Your task to perform on an android device: Go to Amazon Image 0: 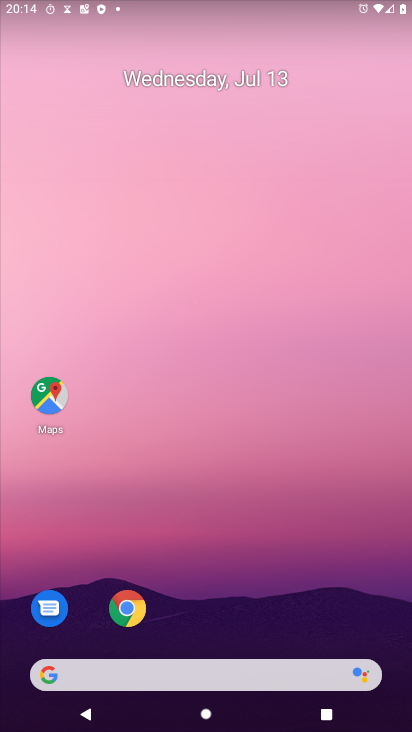
Step 0: drag from (197, 648) to (177, 78)
Your task to perform on an android device: Go to Amazon Image 1: 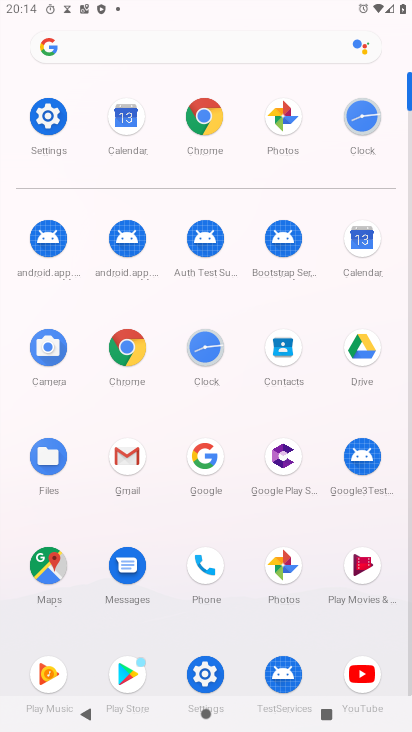
Step 1: click (133, 354)
Your task to perform on an android device: Go to Amazon Image 2: 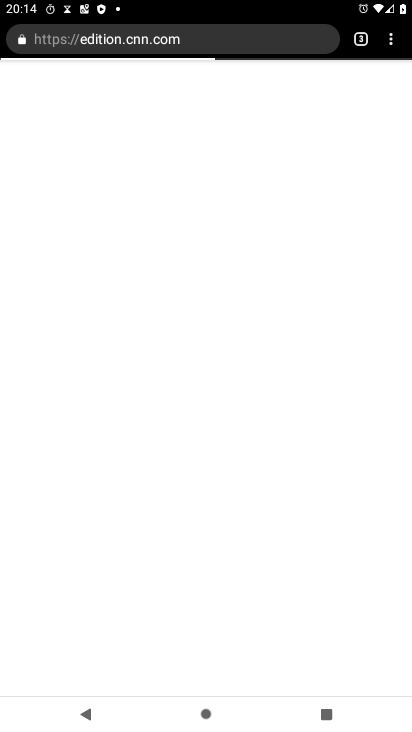
Step 2: click (352, 37)
Your task to perform on an android device: Go to Amazon Image 3: 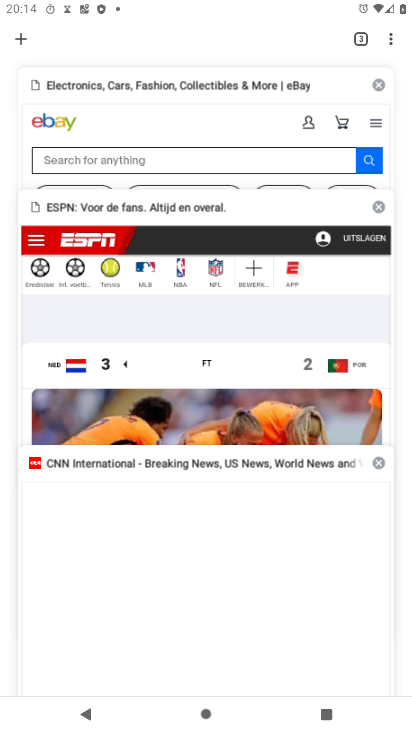
Step 3: click (18, 37)
Your task to perform on an android device: Go to Amazon Image 4: 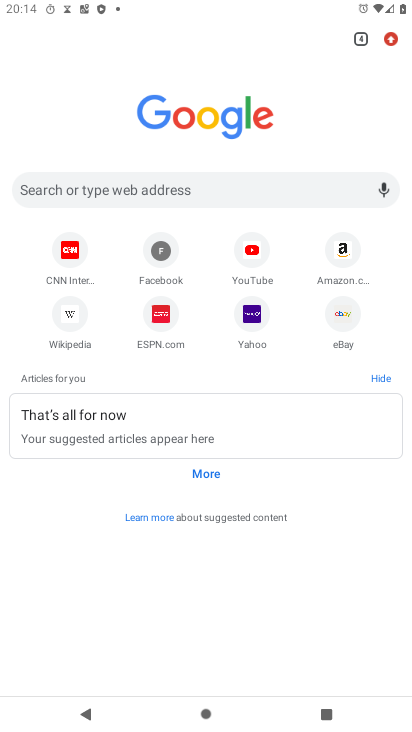
Step 4: click (342, 258)
Your task to perform on an android device: Go to Amazon Image 5: 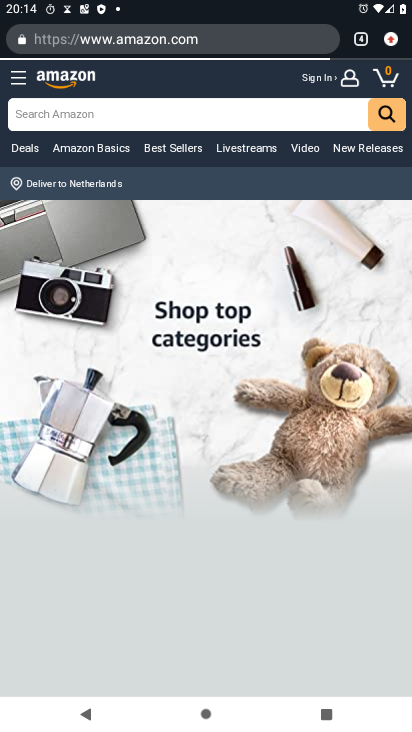
Step 5: task complete